Your task to perform on an android device: turn off sleep mode Image 0: 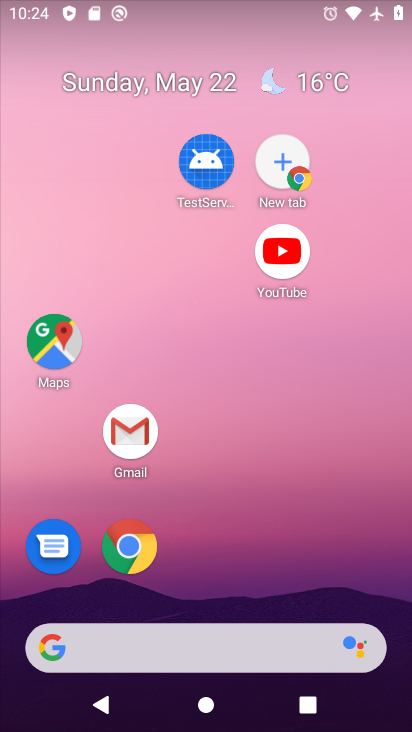
Step 0: drag from (205, 237) to (205, 8)
Your task to perform on an android device: turn off sleep mode Image 1: 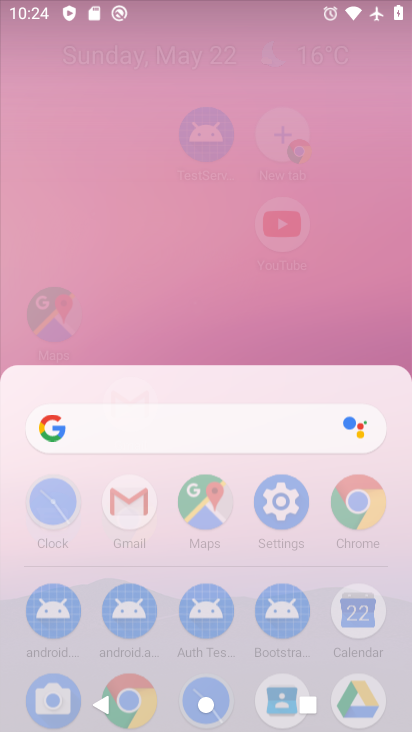
Step 1: drag from (260, 497) to (259, 15)
Your task to perform on an android device: turn off sleep mode Image 2: 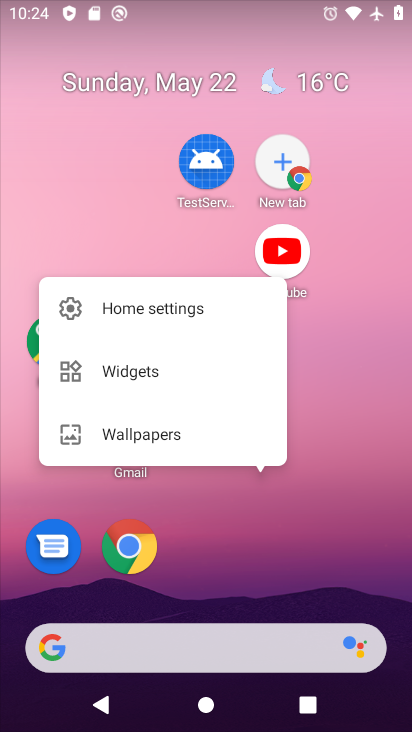
Step 2: drag from (249, 588) to (246, 15)
Your task to perform on an android device: turn off sleep mode Image 3: 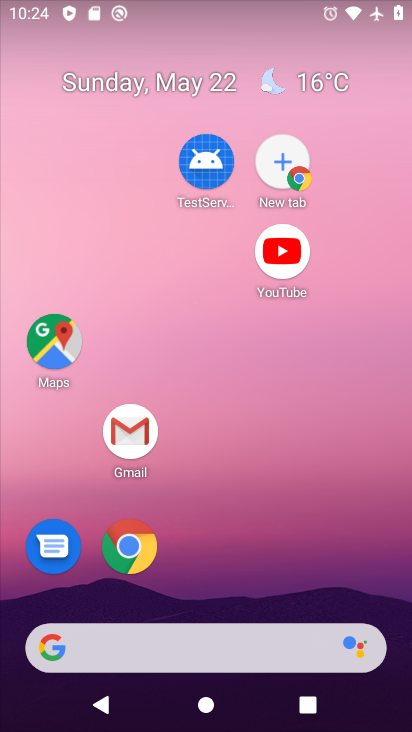
Step 3: drag from (218, 559) to (308, 7)
Your task to perform on an android device: turn off sleep mode Image 4: 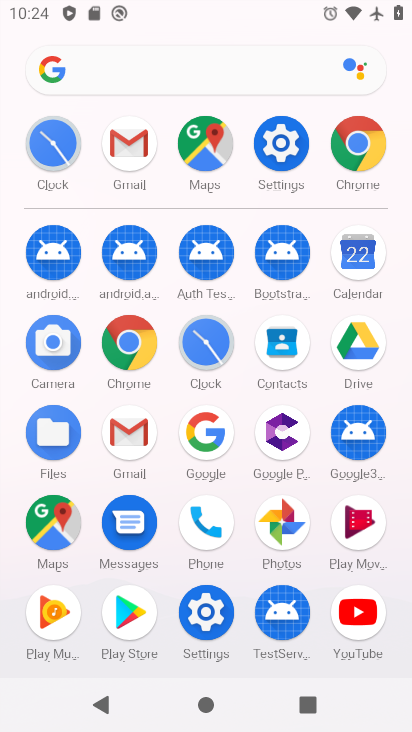
Step 4: drag from (279, 41) to (282, 206)
Your task to perform on an android device: turn off sleep mode Image 5: 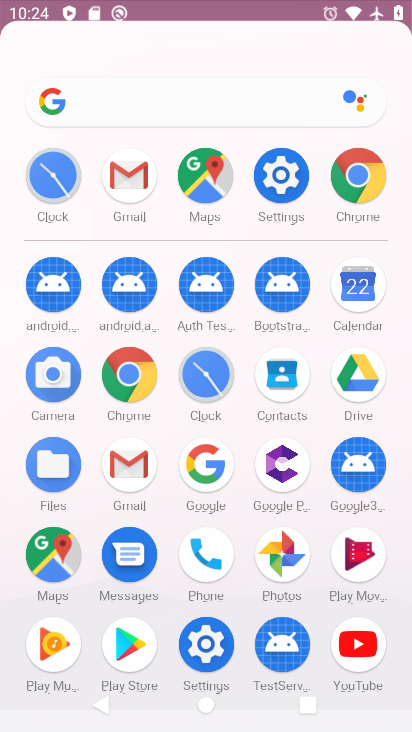
Step 5: click (234, 290)
Your task to perform on an android device: turn off sleep mode Image 6: 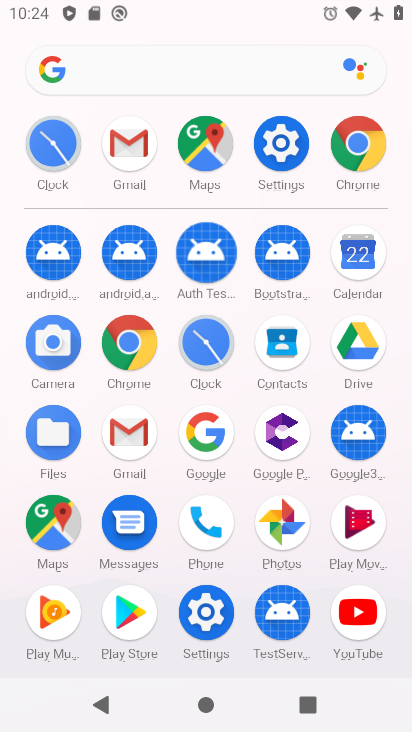
Step 6: click (196, 80)
Your task to perform on an android device: turn off sleep mode Image 7: 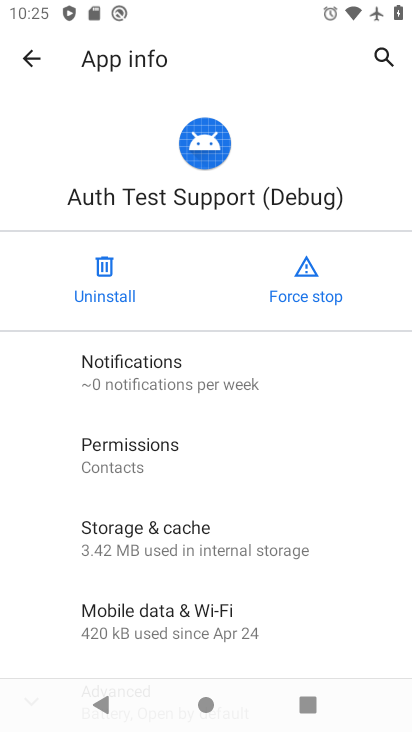
Step 7: click (23, 62)
Your task to perform on an android device: turn off sleep mode Image 8: 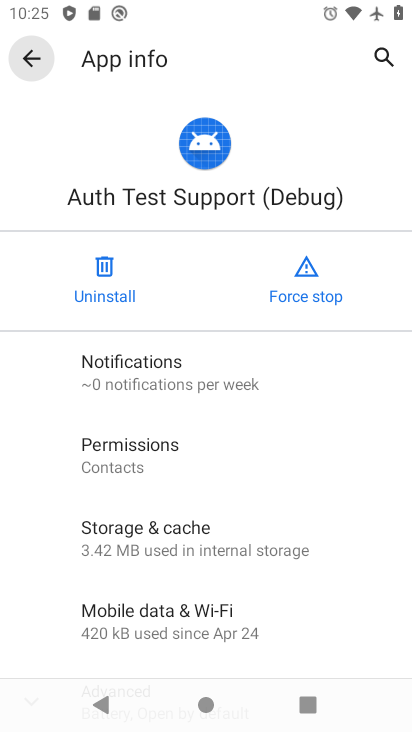
Step 8: click (24, 61)
Your task to perform on an android device: turn off sleep mode Image 9: 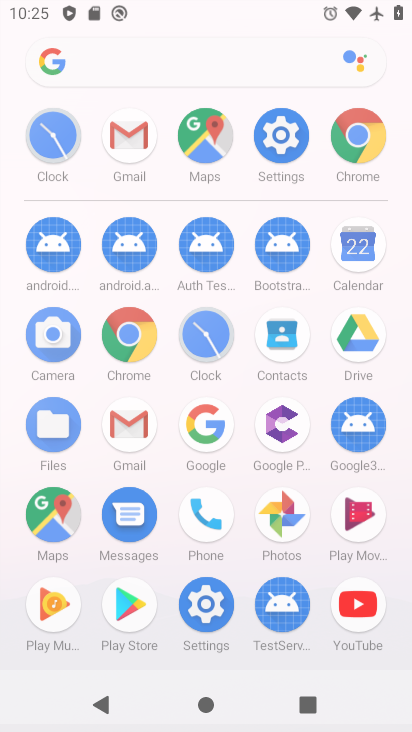
Step 9: click (34, 57)
Your task to perform on an android device: turn off sleep mode Image 10: 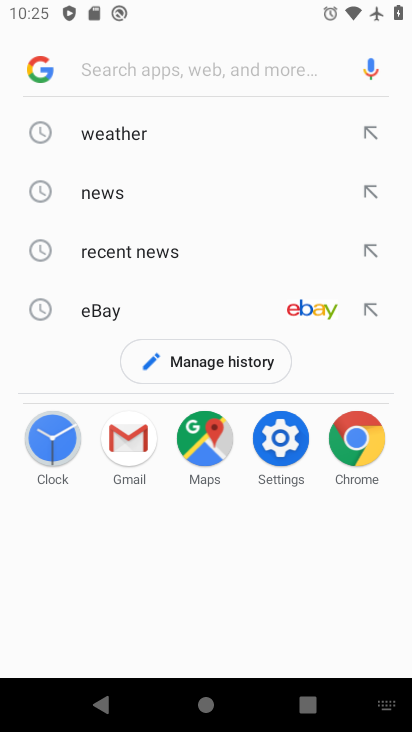
Step 10: press back button
Your task to perform on an android device: turn off sleep mode Image 11: 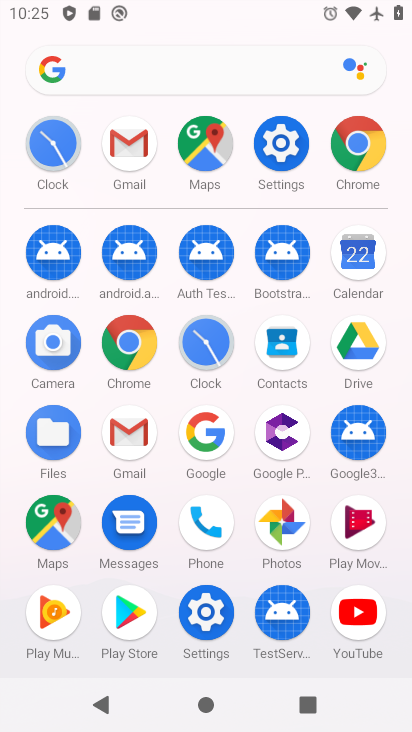
Step 11: click (269, 153)
Your task to perform on an android device: turn off sleep mode Image 12: 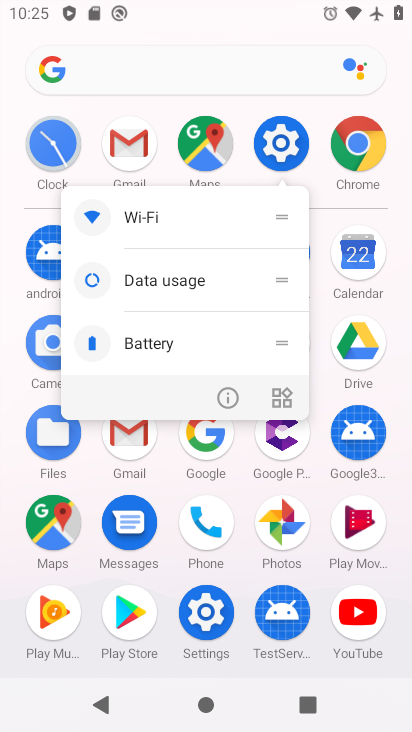
Step 12: click (277, 145)
Your task to perform on an android device: turn off sleep mode Image 13: 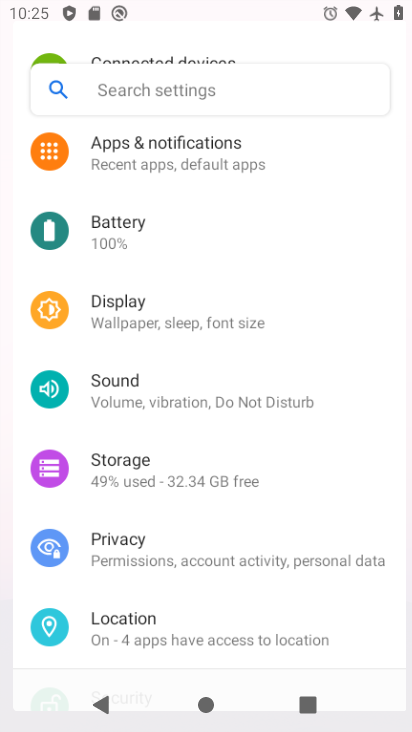
Step 13: click (277, 143)
Your task to perform on an android device: turn off sleep mode Image 14: 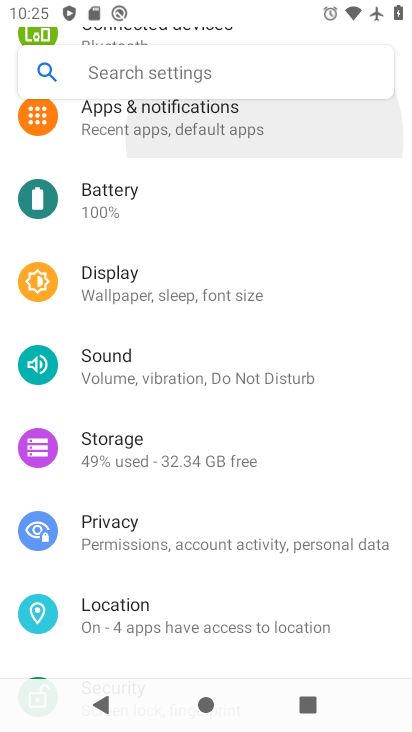
Step 14: click (277, 143)
Your task to perform on an android device: turn off sleep mode Image 15: 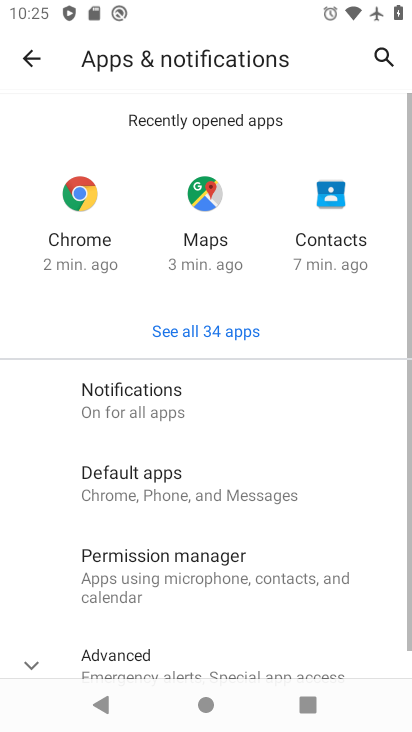
Step 15: click (35, 61)
Your task to perform on an android device: turn off sleep mode Image 16: 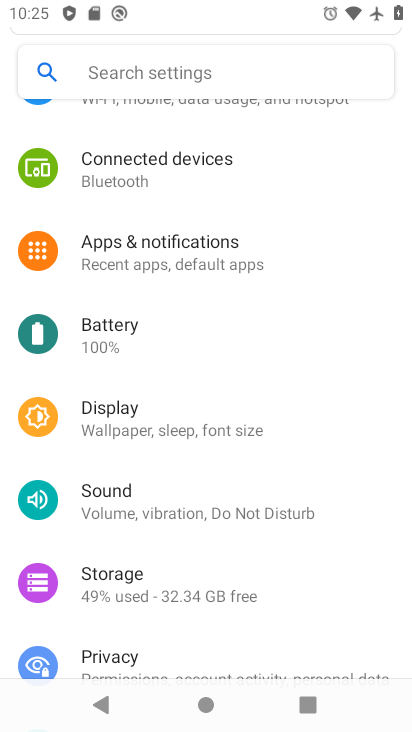
Step 16: click (116, 428)
Your task to perform on an android device: turn off sleep mode Image 17: 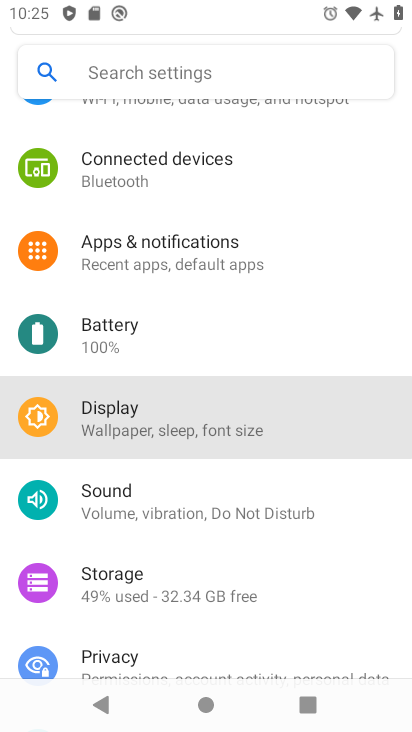
Step 17: click (116, 428)
Your task to perform on an android device: turn off sleep mode Image 18: 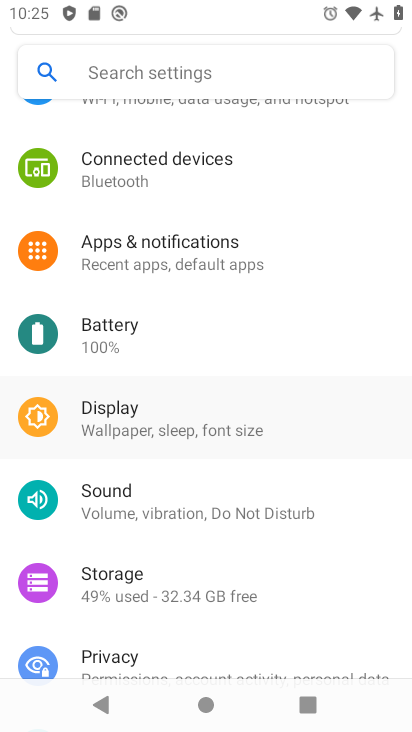
Step 18: click (116, 428)
Your task to perform on an android device: turn off sleep mode Image 19: 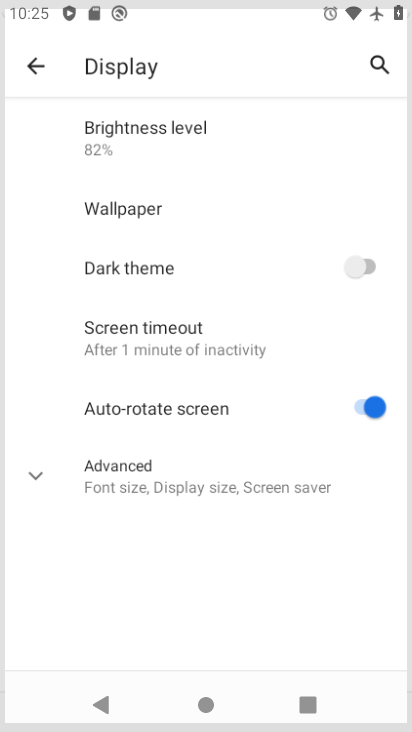
Step 19: click (116, 428)
Your task to perform on an android device: turn off sleep mode Image 20: 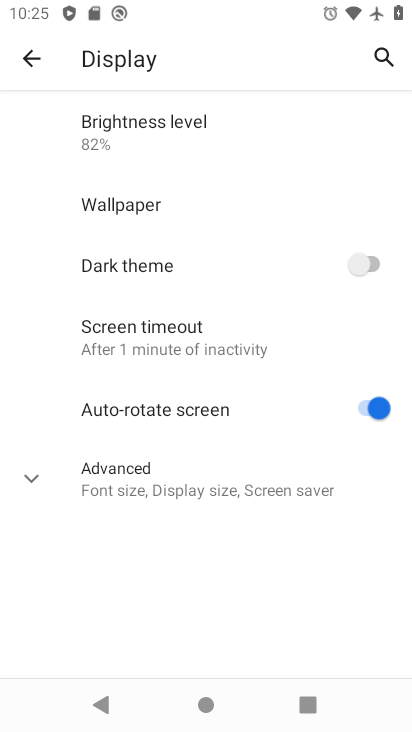
Step 20: click (116, 428)
Your task to perform on an android device: turn off sleep mode Image 21: 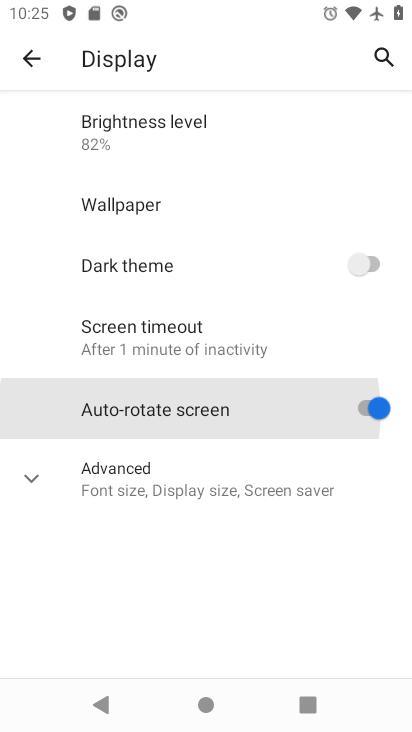
Step 21: click (119, 425)
Your task to perform on an android device: turn off sleep mode Image 22: 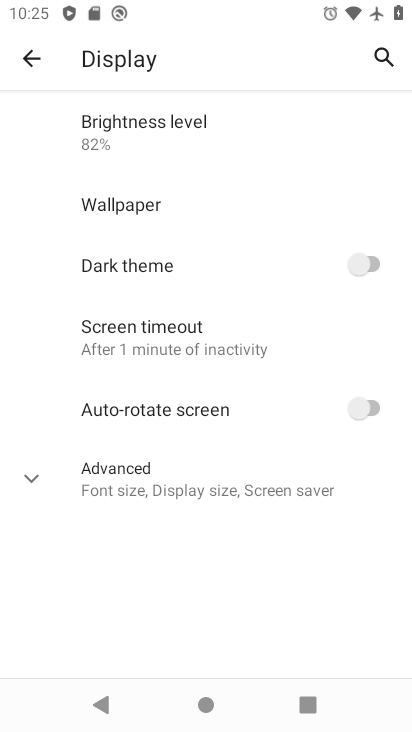
Step 22: task complete